Your task to perform on an android device: find snoozed emails in the gmail app Image 0: 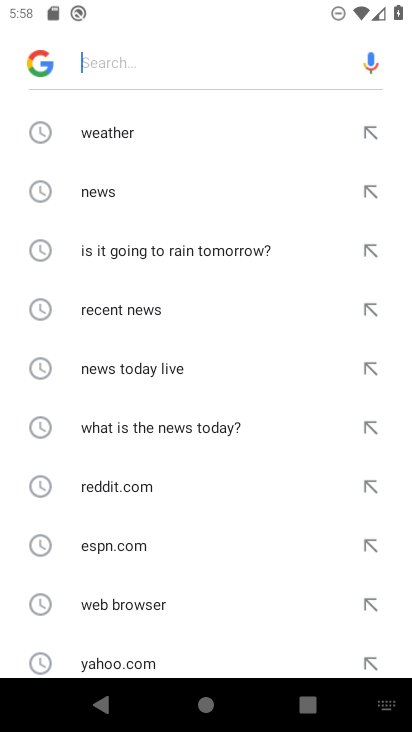
Step 0: press home button
Your task to perform on an android device: find snoozed emails in the gmail app Image 1: 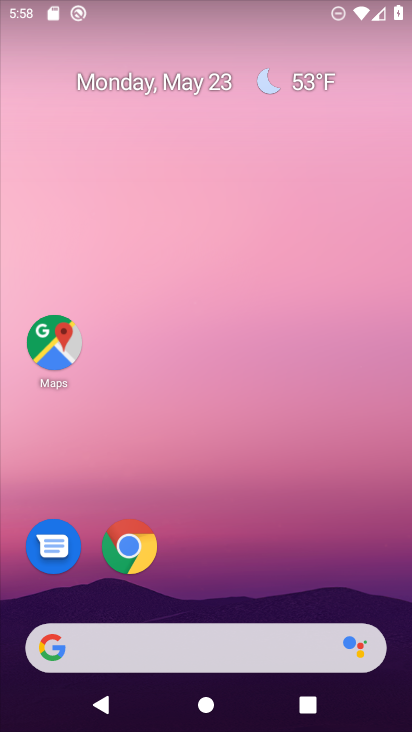
Step 1: drag from (210, 568) to (186, 297)
Your task to perform on an android device: find snoozed emails in the gmail app Image 2: 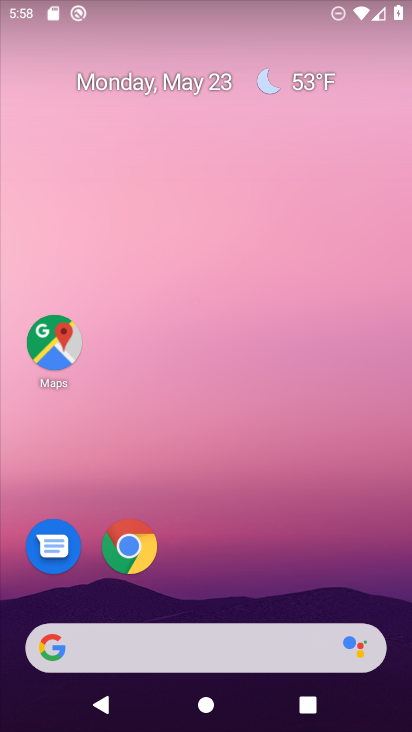
Step 2: drag from (249, 556) to (243, 106)
Your task to perform on an android device: find snoozed emails in the gmail app Image 3: 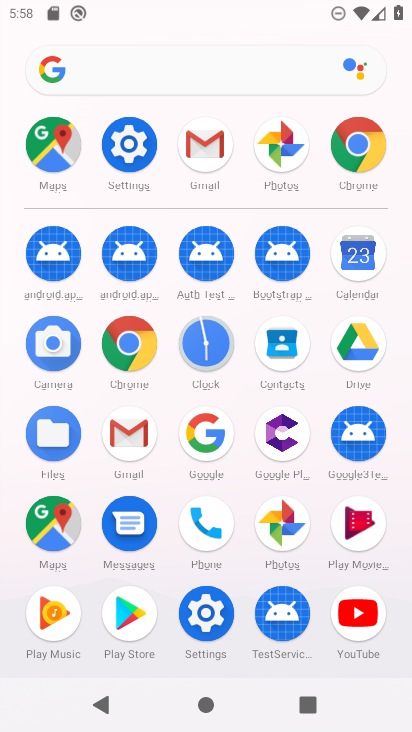
Step 3: click (190, 144)
Your task to perform on an android device: find snoozed emails in the gmail app Image 4: 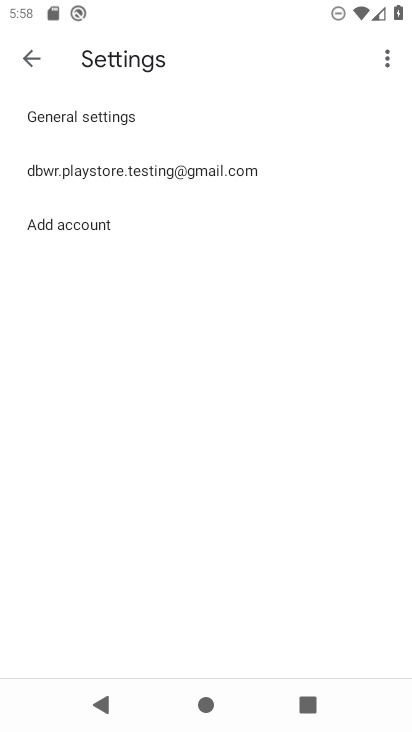
Step 4: click (35, 63)
Your task to perform on an android device: find snoozed emails in the gmail app Image 5: 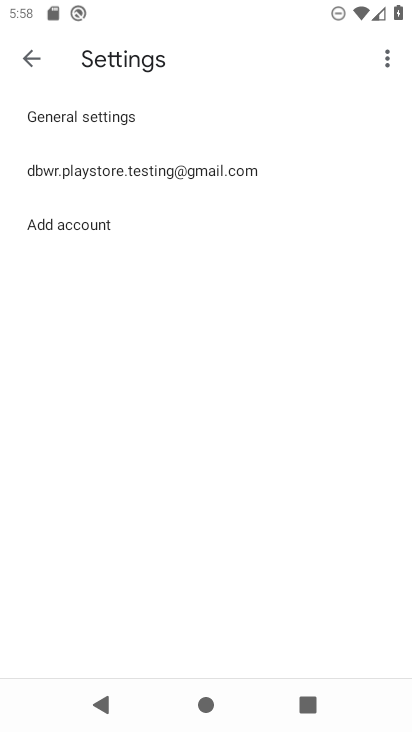
Step 5: click (29, 59)
Your task to perform on an android device: find snoozed emails in the gmail app Image 6: 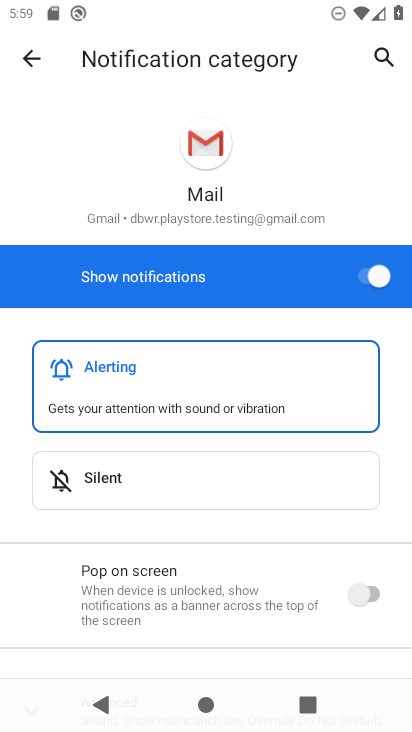
Step 6: click (36, 59)
Your task to perform on an android device: find snoozed emails in the gmail app Image 7: 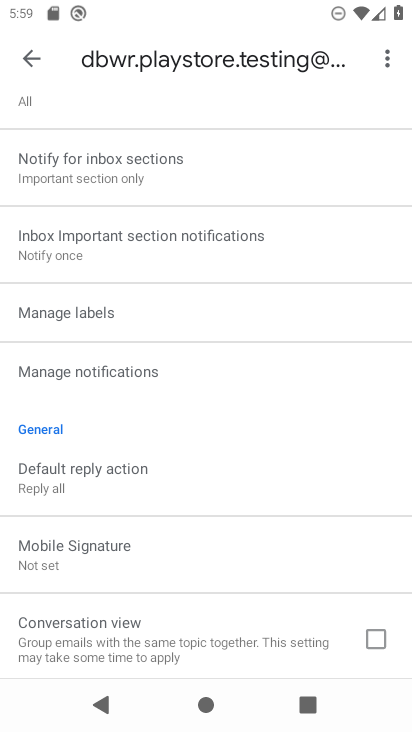
Step 7: click (28, 49)
Your task to perform on an android device: find snoozed emails in the gmail app Image 8: 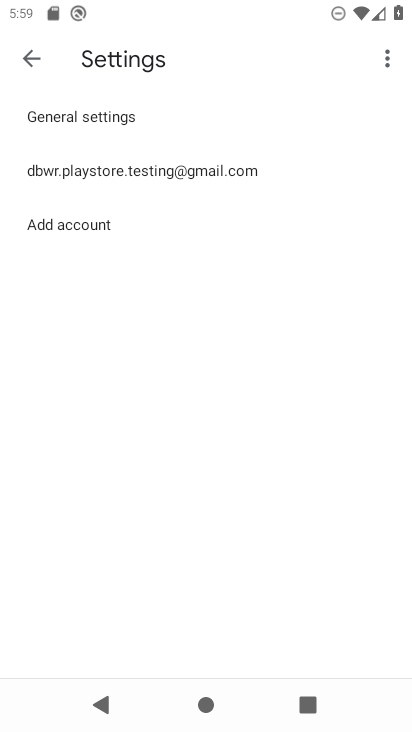
Step 8: click (33, 47)
Your task to perform on an android device: find snoozed emails in the gmail app Image 9: 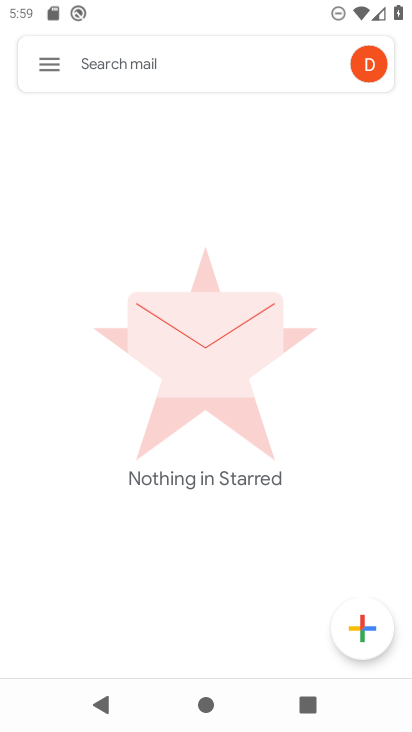
Step 9: click (45, 63)
Your task to perform on an android device: find snoozed emails in the gmail app Image 10: 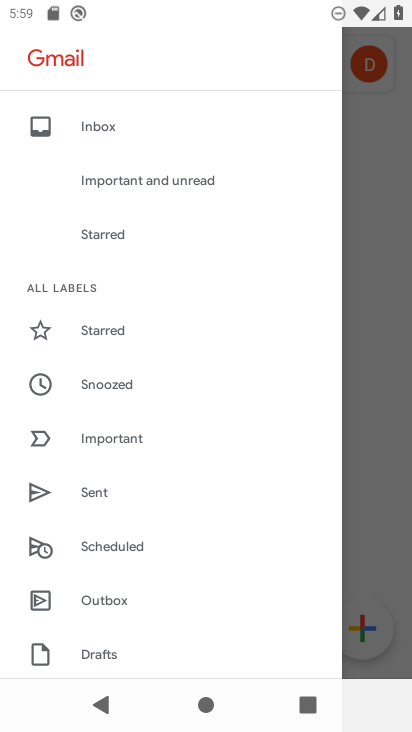
Step 10: click (118, 380)
Your task to perform on an android device: find snoozed emails in the gmail app Image 11: 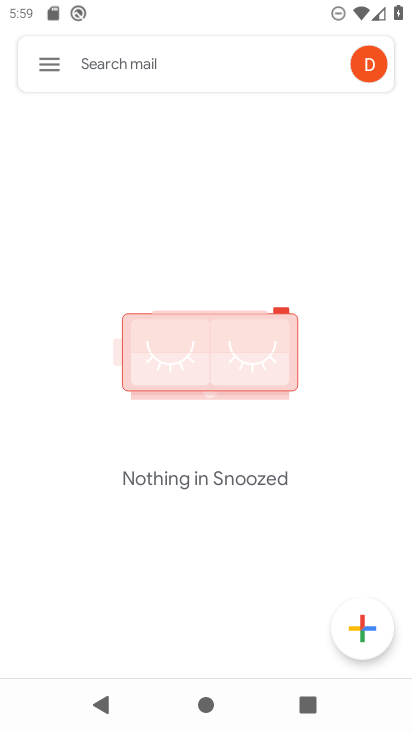
Step 11: task complete